Your task to perform on an android device: turn on notifications settings in the gmail app Image 0: 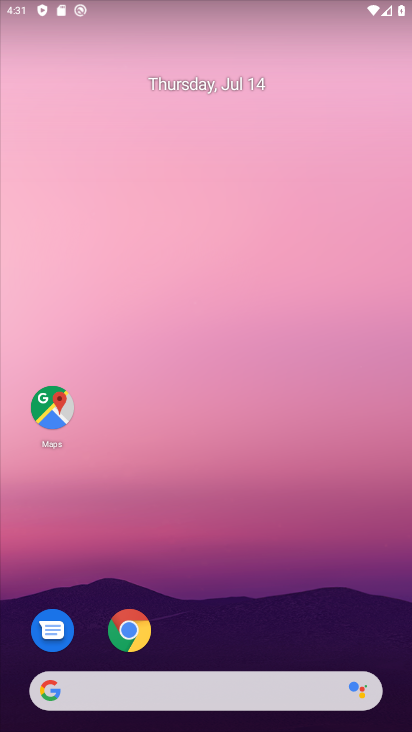
Step 0: drag from (208, 666) to (266, 51)
Your task to perform on an android device: turn on notifications settings in the gmail app Image 1: 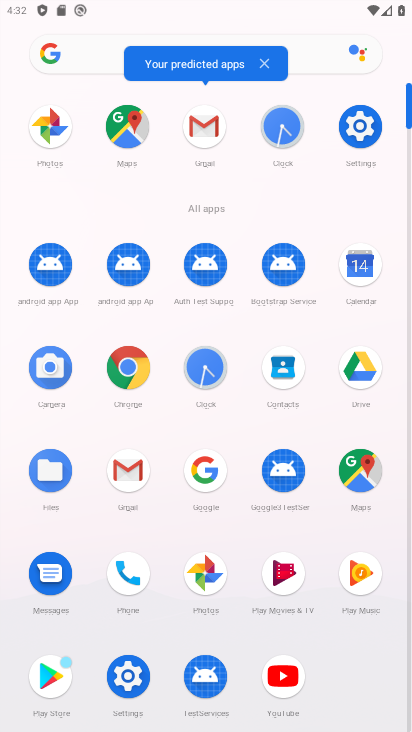
Step 1: click (148, 486)
Your task to perform on an android device: turn on notifications settings in the gmail app Image 2: 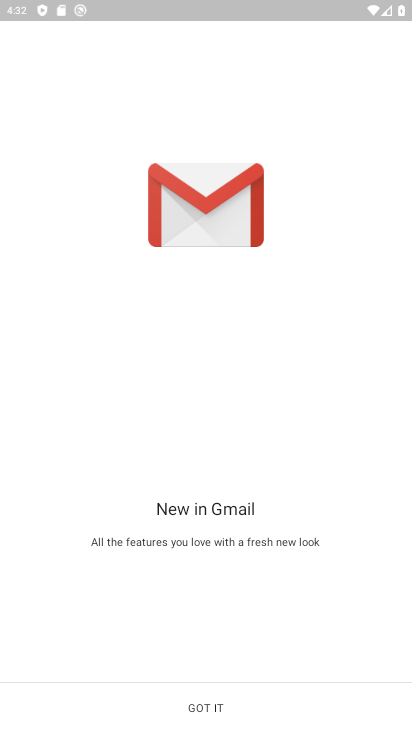
Step 2: click (224, 718)
Your task to perform on an android device: turn on notifications settings in the gmail app Image 3: 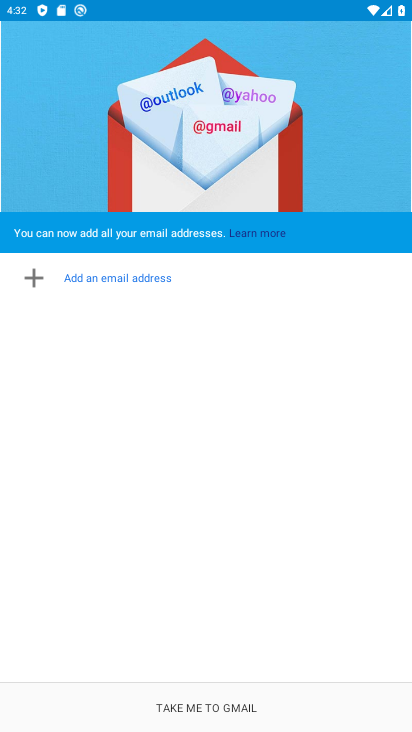
Step 3: click (224, 718)
Your task to perform on an android device: turn on notifications settings in the gmail app Image 4: 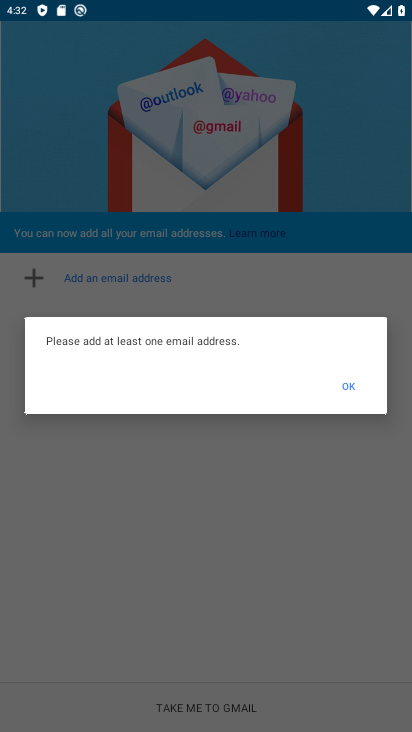
Step 4: task complete